Your task to perform on an android device: turn vacation reply on in the gmail app Image 0: 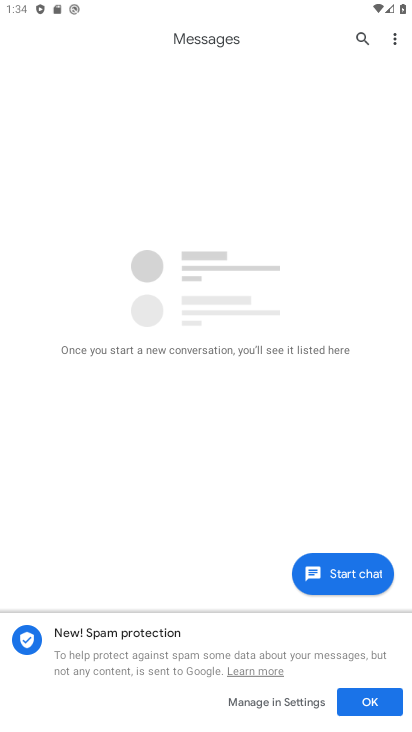
Step 0: press home button
Your task to perform on an android device: turn vacation reply on in the gmail app Image 1: 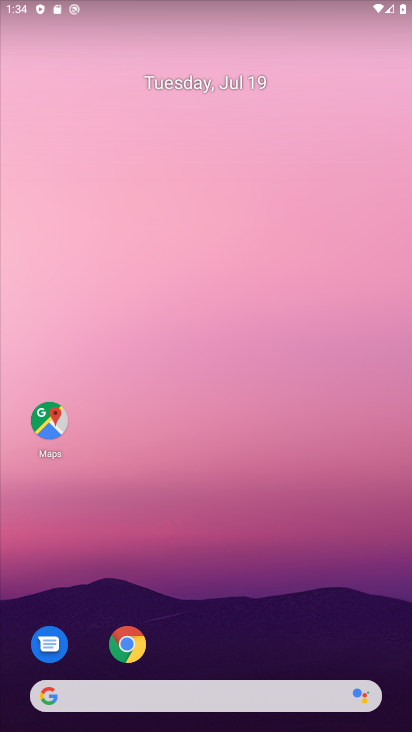
Step 1: drag from (184, 671) to (179, 159)
Your task to perform on an android device: turn vacation reply on in the gmail app Image 2: 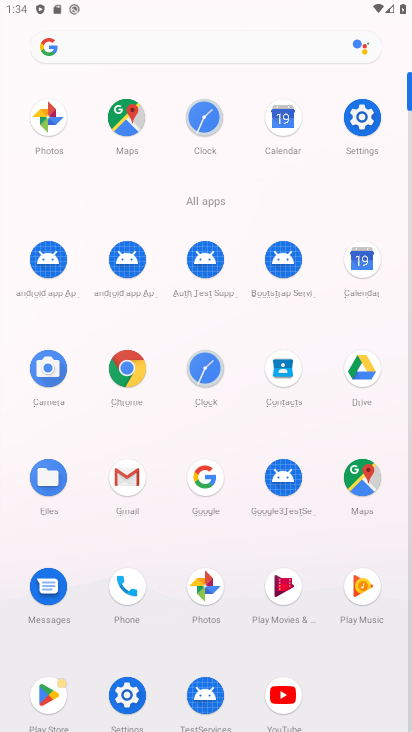
Step 2: click (131, 476)
Your task to perform on an android device: turn vacation reply on in the gmail app Image 3: 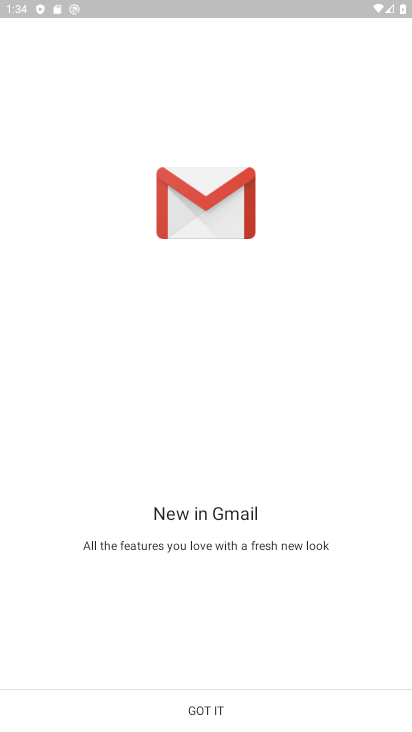
Step 3: click (220, 694)
Your task to perform on an android device: turn vacation reply on in the gmail app Image 4: 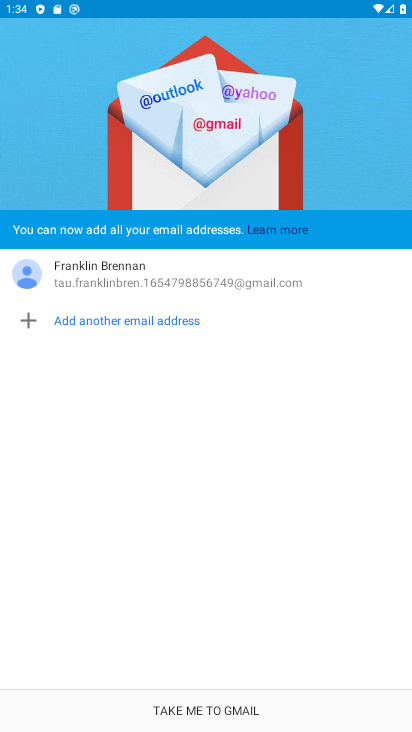
Step 4: click (209, 694)
Your task to perform on an android device: turn vacation reply on in the gmail app Image 5: 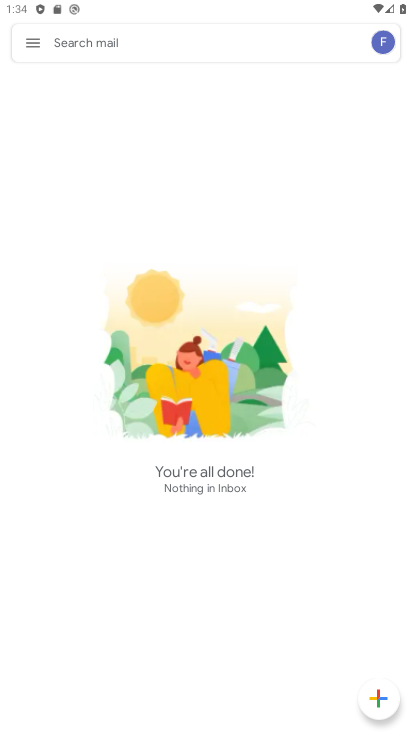
Step 5: click (25, 44)
Your task to perform on an android device: turn vacation reply on in the gmail app Image 6: 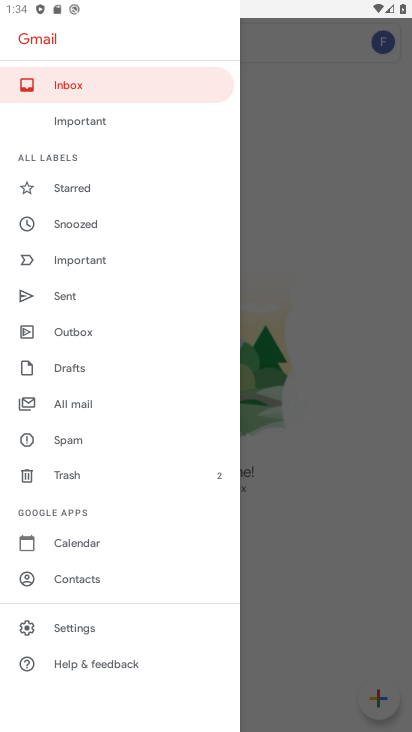
Step 6: click (72, 619)
Your task to perform on an android device: turn vacation reply on in the gmail app Image 7: 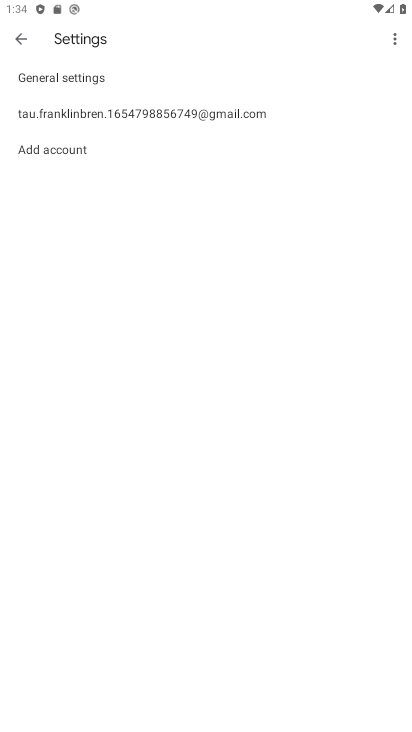
Step 7: click (97, 115)
Your task to perform on an android device: turn vacation reply on in the gmail app Image 8: 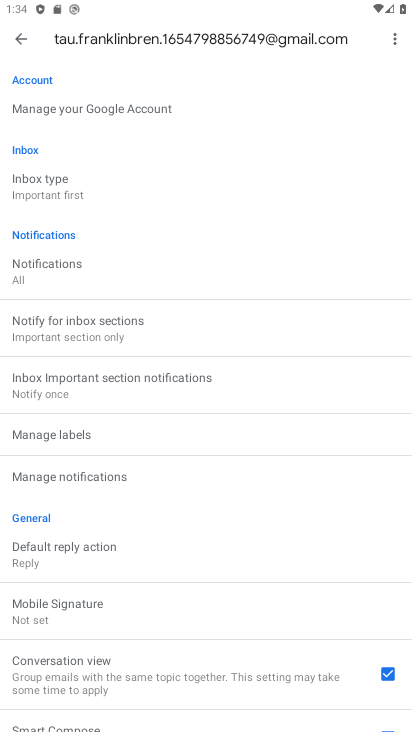
Step 8: drag from (166, 527) to (167, 169)
Your task to perform on an android device: turn vacation reply on in the gmail app Image 9: 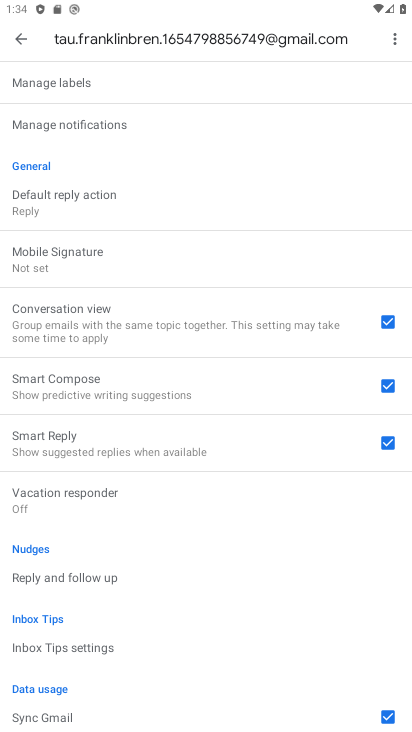
Step 9: click (188, 516)
Your task to perform on an android device: turn vacation reply on in the gmail app Image 10: 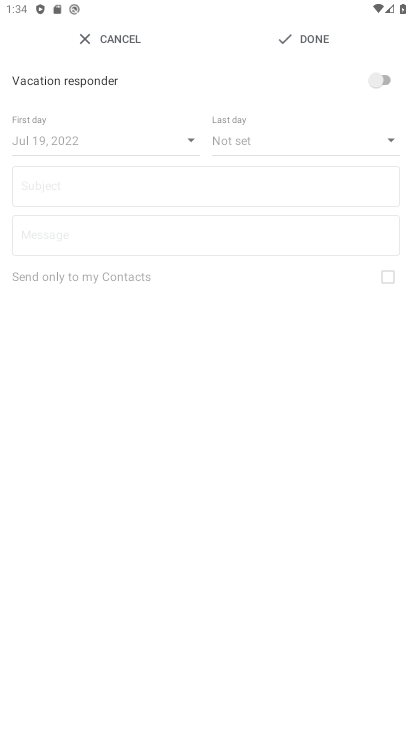
Step 10: click (373, 73)
Your task to perform on an android device: turn vacation reply on in the gmail app Image 11: 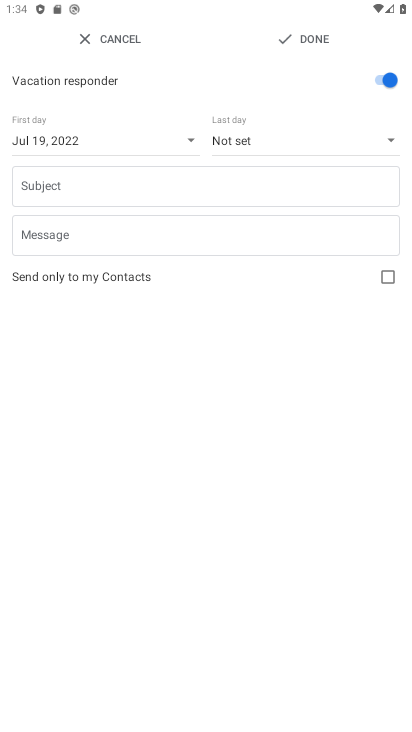
Step 11: click (286, 27)
Your task to perform on an android device: turn vacation reply on in the gmail app Image 12: 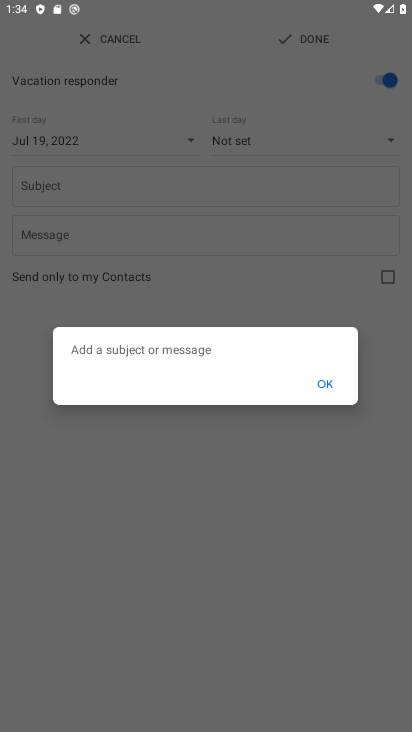
Step 12: task complete